Your task to perform on an android device: turn on priority inbox in the gmail app Image 0: 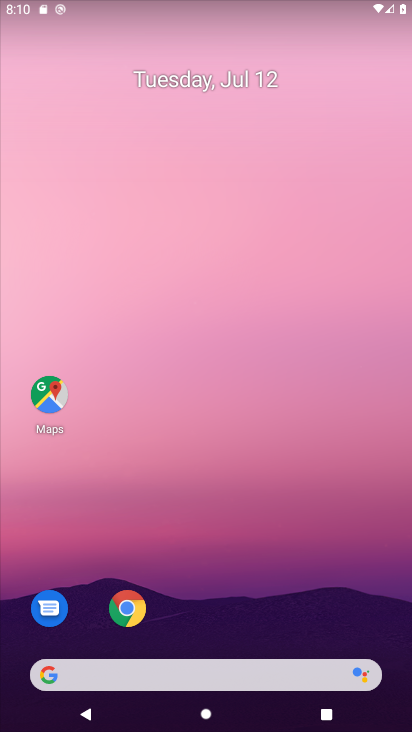
Step 0: drag from (249, 670) to (345, 281)
Your task to perform on an android device: turn on priority inbox in the gmail app Image 1: 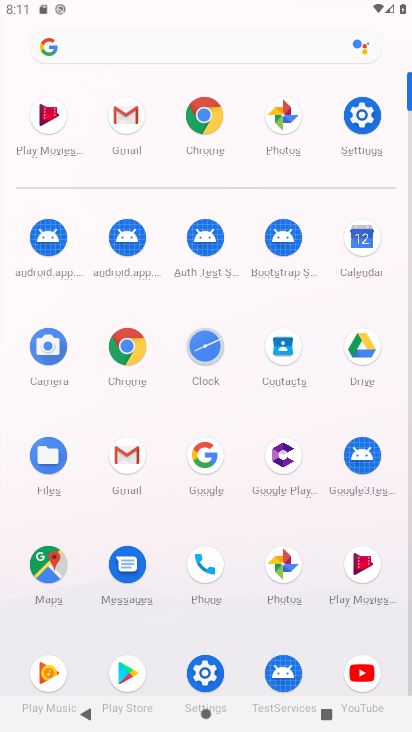
Step 1: click (119, 123)
Your task to perform on an android device: turn on priority inbox in the gmail app Image 2: 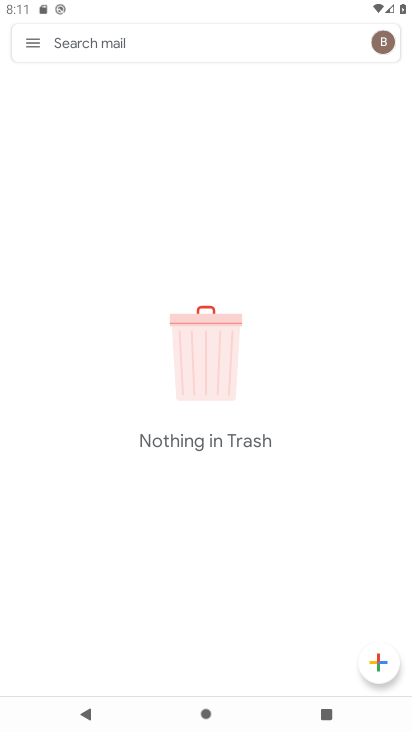
Step 2: click (31, 48)
Your task to perform on an android device: turn on priority inbox in the gmail app Image 3: 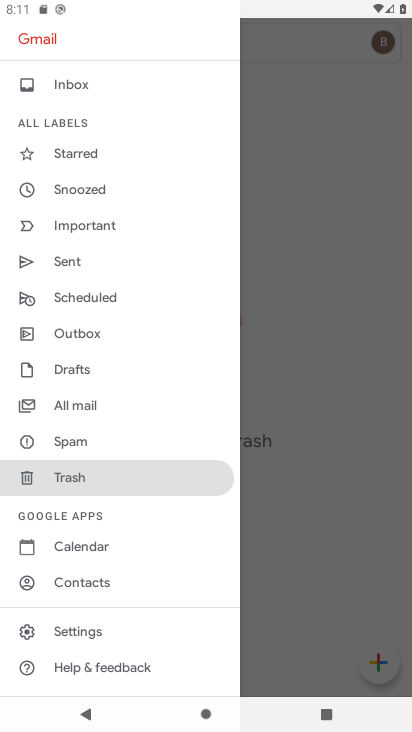
Step 3: click (95, 634)
Your task to perform on an android device: turn on priority inbox in the gmail app Image 4: 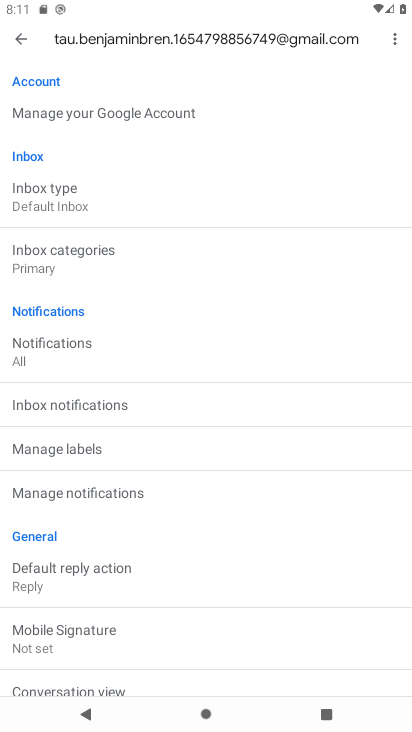
Step 4: click (40, 194)
Your task to perform on an android device: turn on priority inbox in the gmail app Image 5: 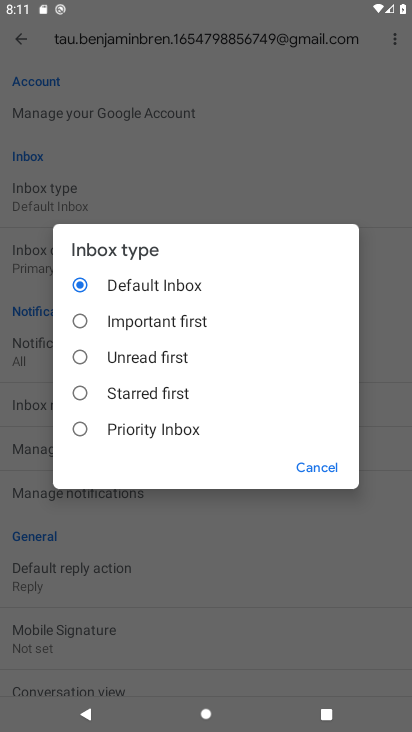
Step 5: click (80, 431)
Your task to perform on an android device: turn on priority inbox in the gmail app Image 6: 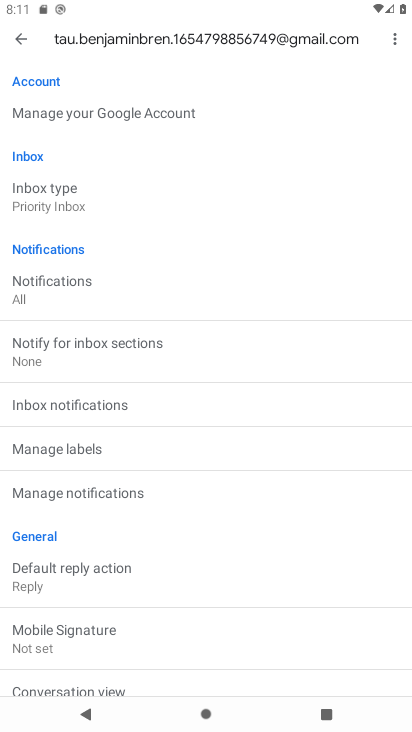
Step 6: task complete